Your task to perform on an android device: turn on the 12-hour format for clock Image 0: 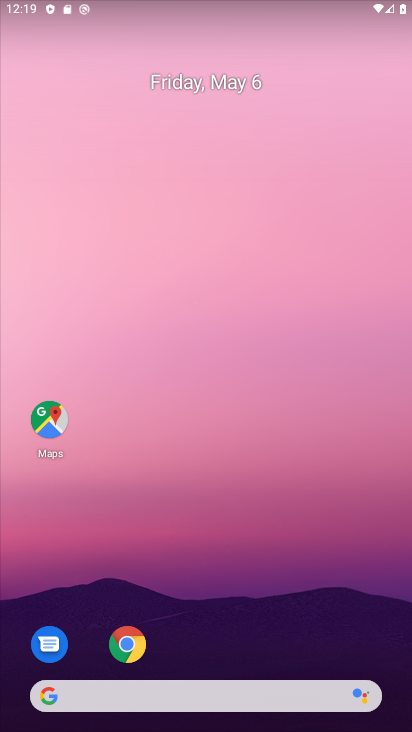
Step 0: drag from (308, 691) to (376, 94)
Your task to perform on an android device: turn on the 12-hour format for clock Image 1: 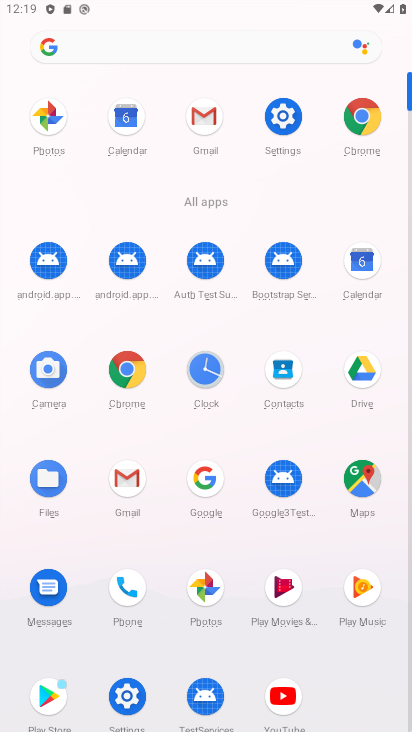
Step 1: click (206, 366)
Your task to perform on an android device: turn on the 12-hour format for clock Image 2: 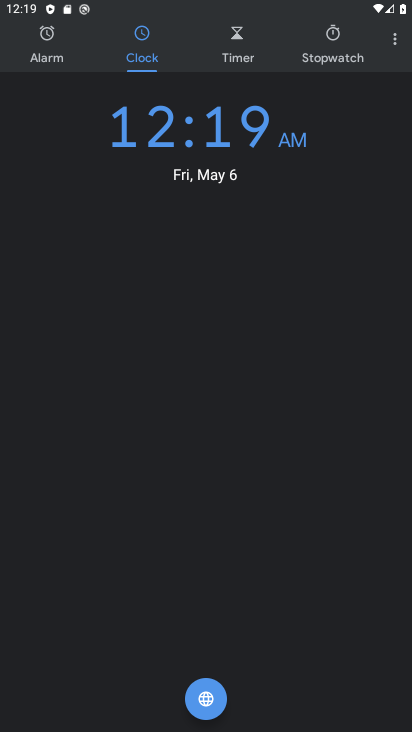
Step 2: click (401, 39)
Your task to perform on an android device: turn on the 12-hour format for clock Image 3: 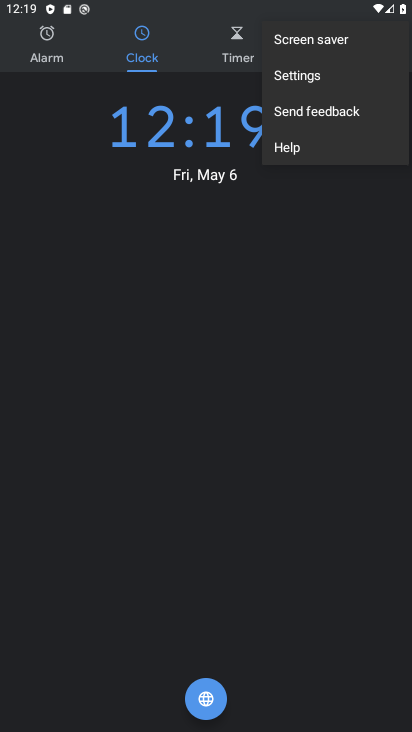
Step 3: click (327, 79)
Your task to perform on an android device: turn on the 12-hour format for clock Image 4: 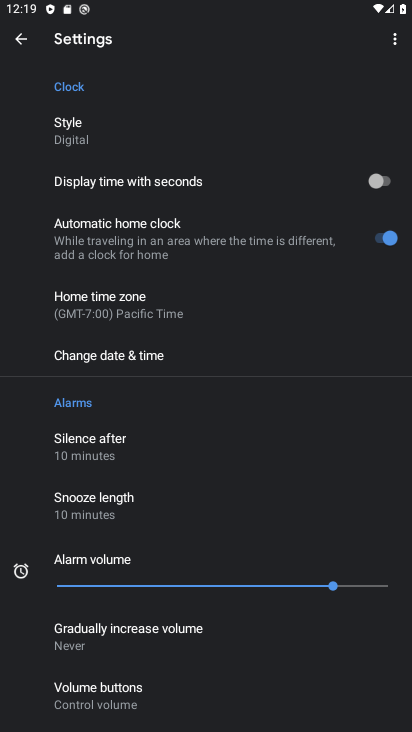
Step 4: click (148, 353)
Your task to perform on an android device: turn on the 12-hour format for clock Image 5: 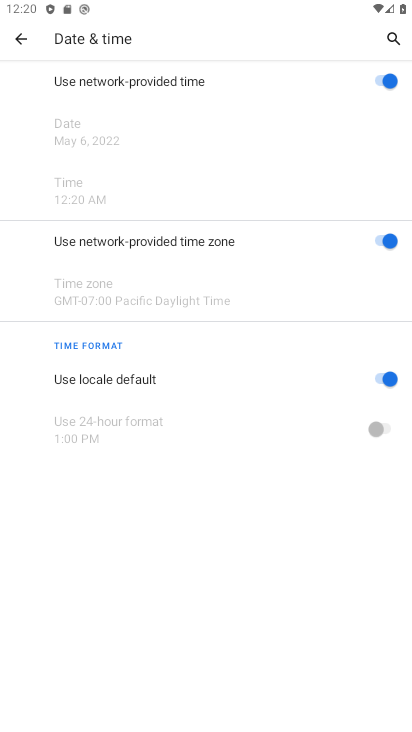
Step 5: task complete